Your task to perform on an android device: What is the capital of Canada? Image 0: 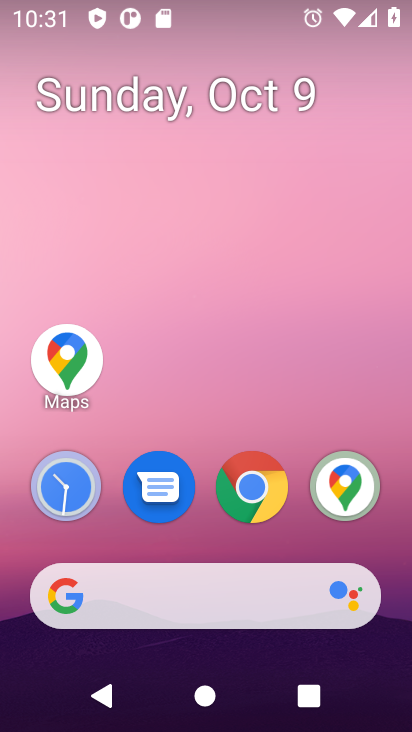
Step 0: drag from (196, 562) to (199, 12)
Your task to perform on an android device: What is the capital of Canada? Image 1: 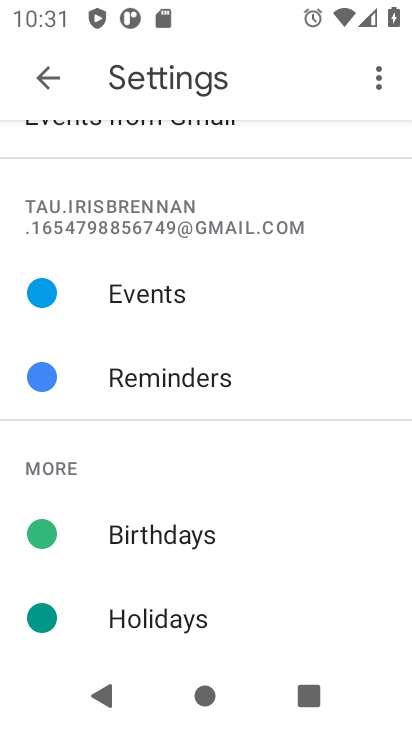
Step 1: press home button
Your task to perform on an android device: What is the capital of Canada? Image 2: 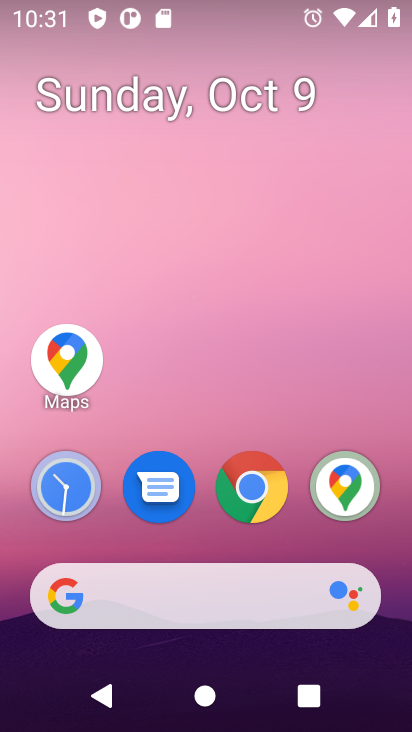
Step 2: drag from (208, 556) to (235, 75)
Your task to perform on an android device: What is the capital of Canada? Image 3: 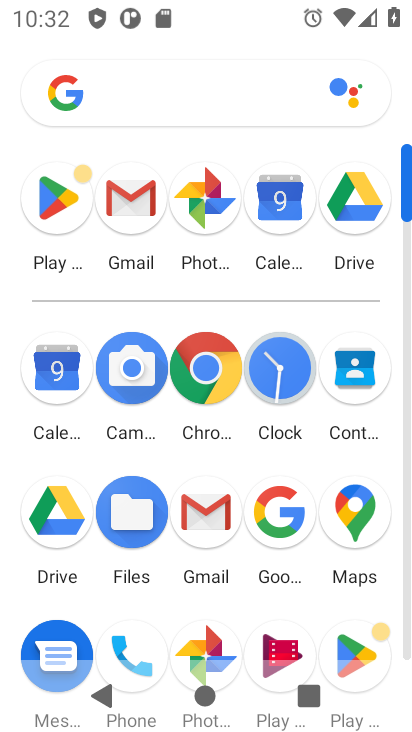
Step 3: click (286, 514)
Your task to perform on an android device: What is the capital of Canada? Image 4: 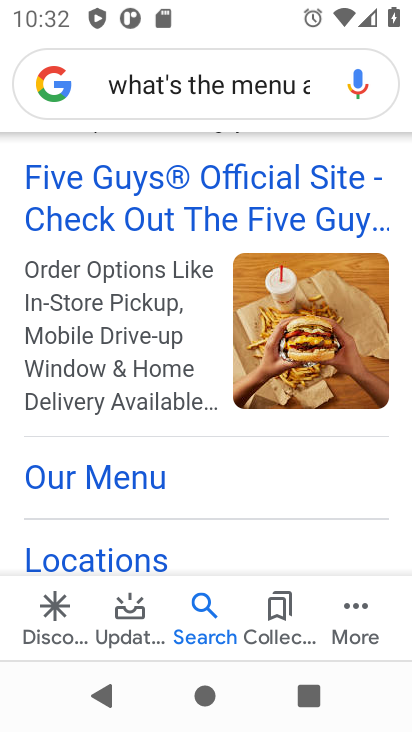
Step 4: click (216, 98)
Your task to perform on an android device: What is the capital of Canada? Image 5: 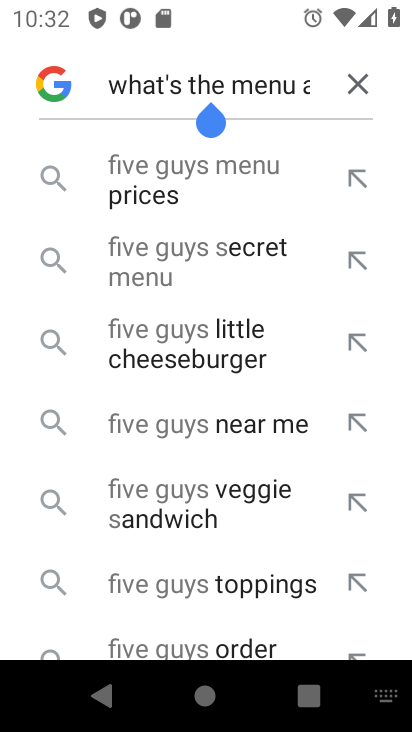
Step 5: click (361, 82)
Your task to perform on an android device: What is the capital of Canada? Image 6: 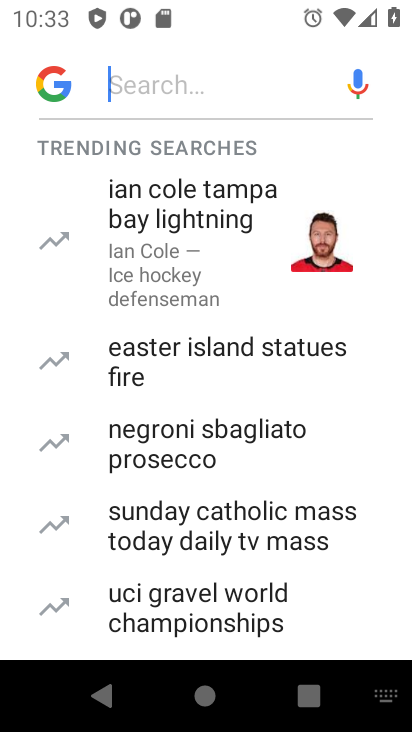
Step 6: type "What is the capital of Canada?"
Your task to perform on an android device: What is the capital of Canada? Image 7: 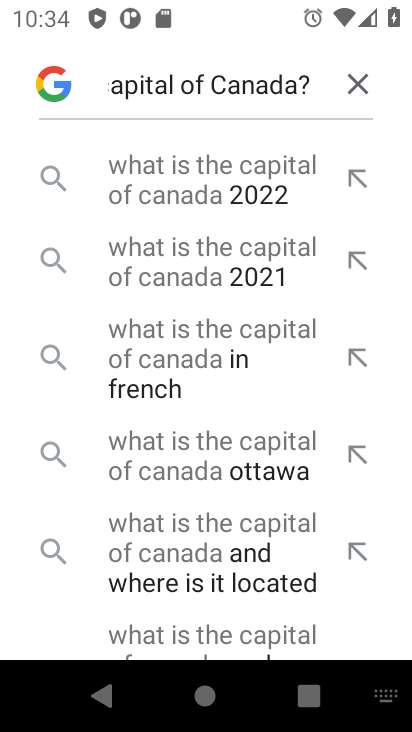
Step 7: click (219, 188)
Your task to perform on an android device: What is the capital of Canada? Image 8: 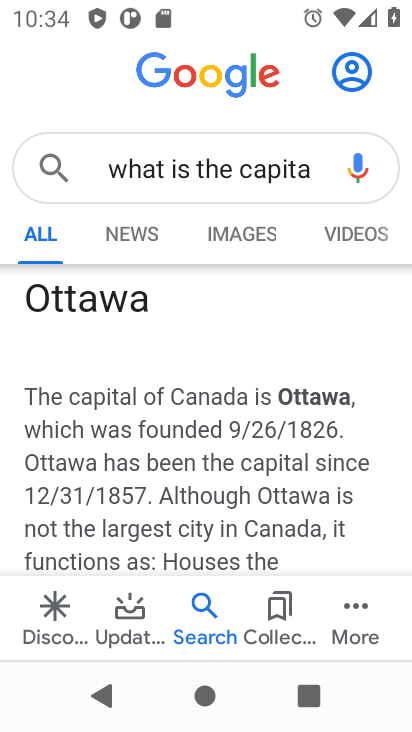
Step 8: task complete